Your task to perform on an android device: Toggle the flashlight Image 0: 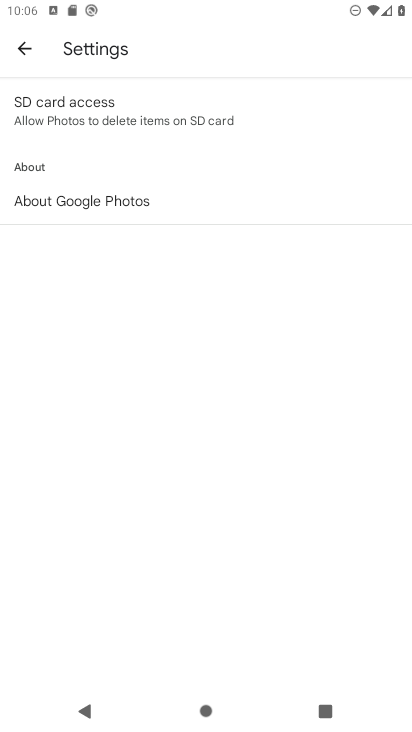
Step 0: press home button
Your task to perform on an android device: Toggle the flashlight Image 1: 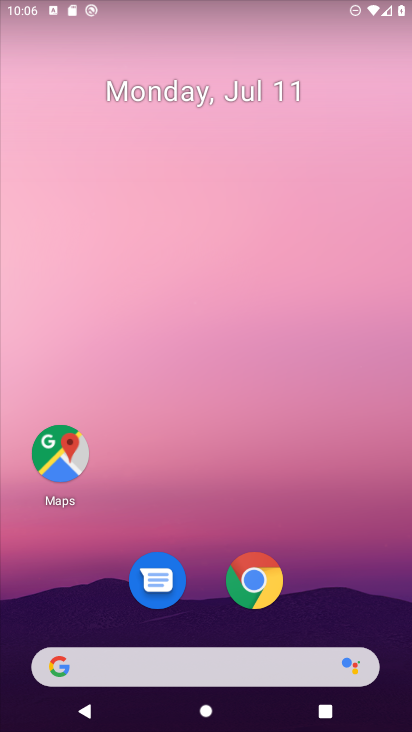
Step 1: drag from (280, 493) to (295, 27)
Your task to perform on an android device: Toggle the flashlight Image 2: 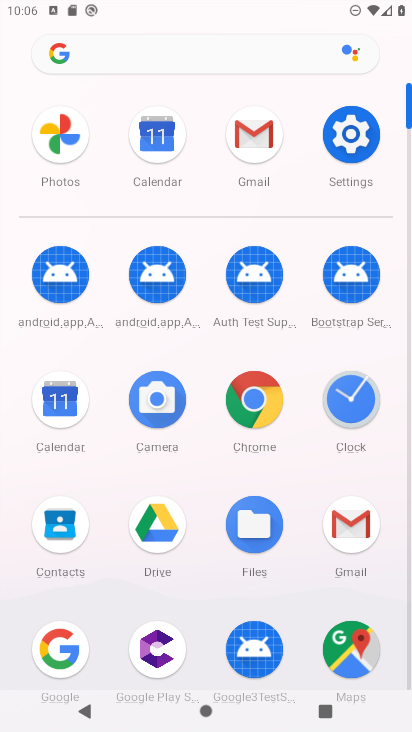
Step 2: click (338, 138)
Your task to perform on an android device: Toggle the flashlight Image 3: 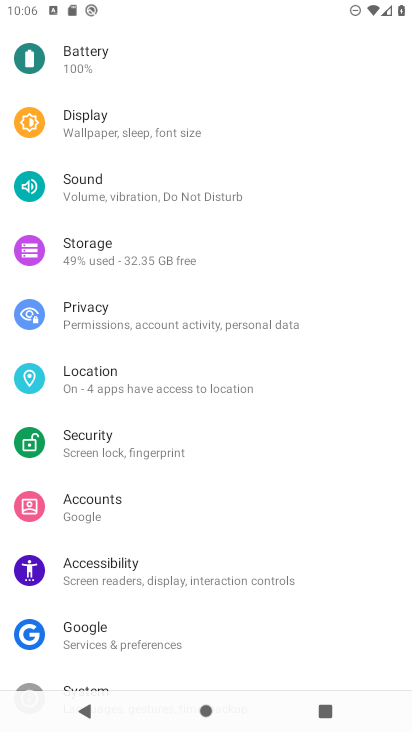
Step 3: drag from (232, 221) to (301, 712)
Your task to perform on an android device: Toggle the flashlight Image 4: 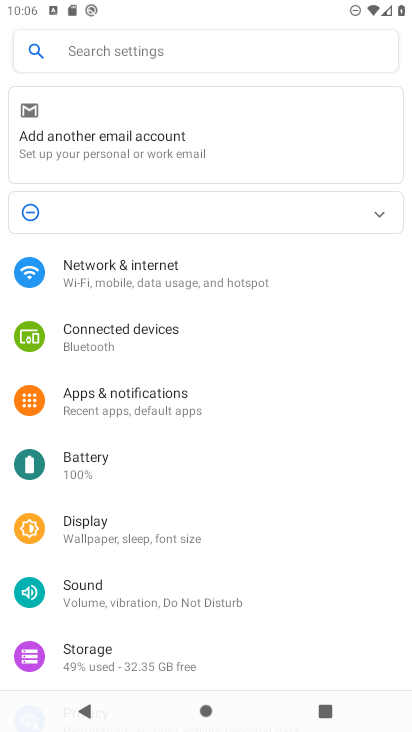
Step 4: click (206, 36)
Your task to perform on an android device: Toggle the flashlight Image 5: 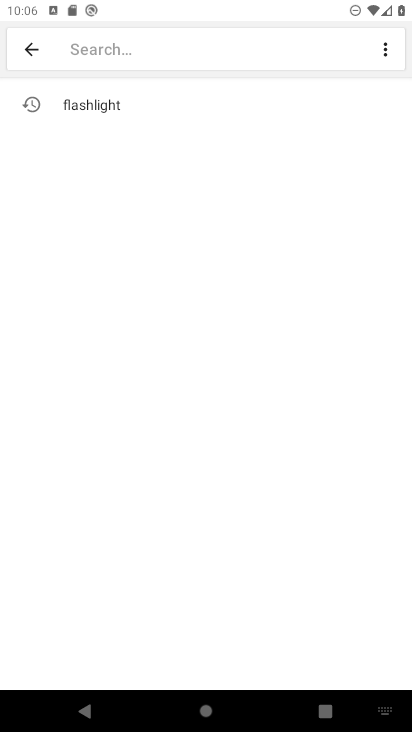
Step 5: click (116, 102)
Your task to perform on an android device: Toggle the flashlight Image 6: 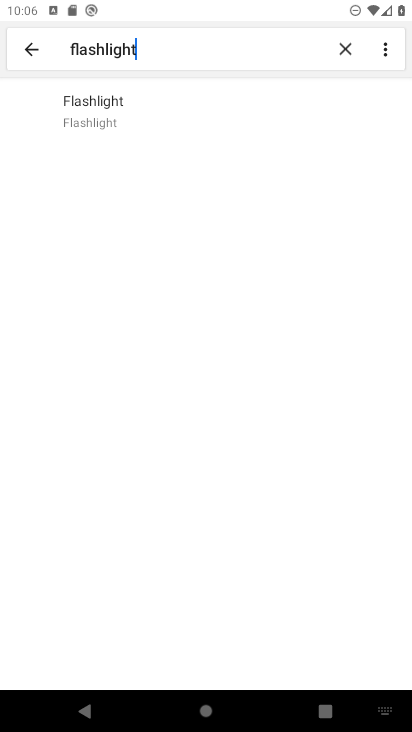
Step 6: click (106, 107)
Your task to perform on an android device: Toggle the flashlight Image 7: 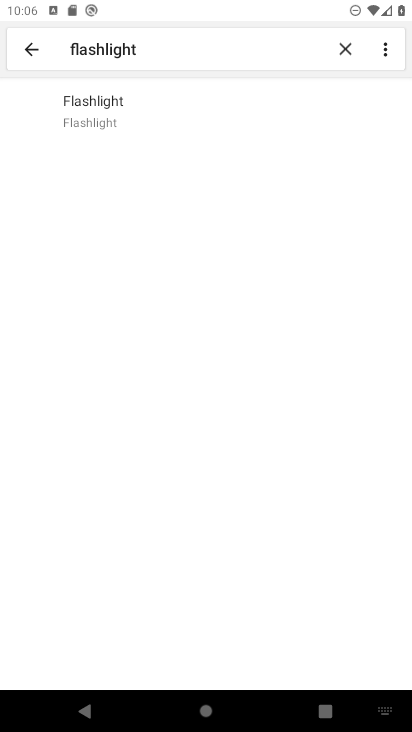
Step 7: click (94, 105)
Your task to perform on an android device: Toggle the flashlight Image 8: 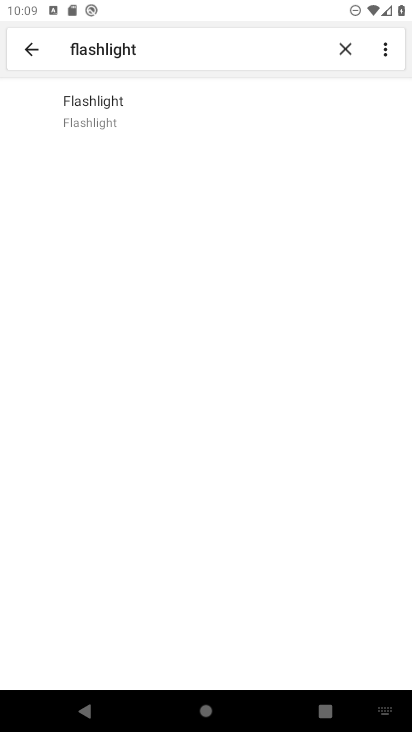
Step 8: task complete